Your task to perform on an android device: delete browsing data in the chrome app Image 0: 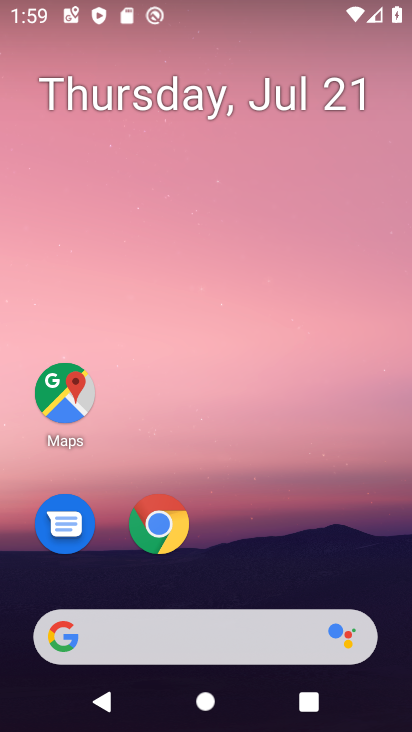
Step 0: click (178, 531)
Your task to perform on an android device: delete browsing data in the chrome app Image 1: 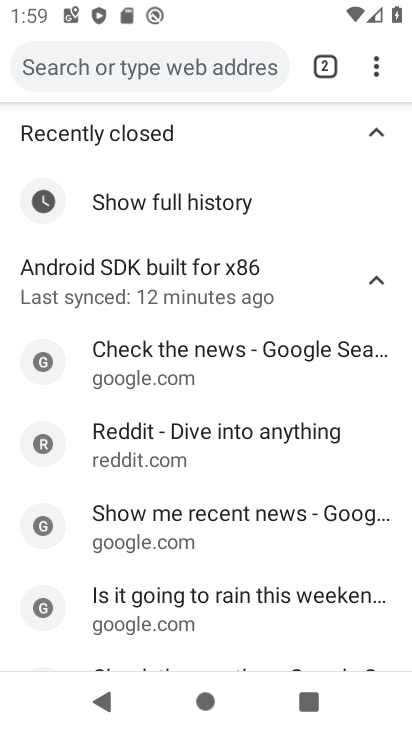
Step 1: click (376, 70)
Your task to perform on an android device: delete browsing data in the chrome app Image 2: 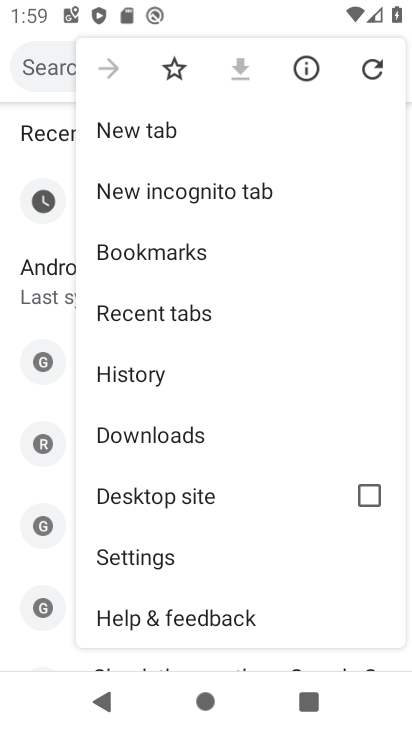
Step 2: click (129, 377)
Your task to perform on an android device: delete browsing data in the chrome app Image 3: 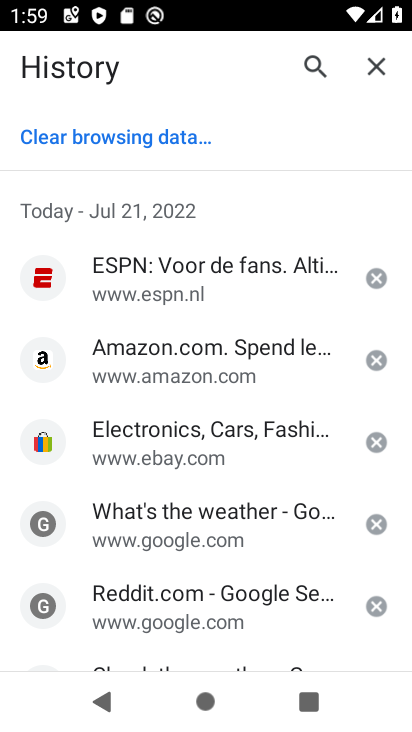
Step 3: click (126, 139)
Your task to perform on an android device: delete browsing data in the chrome app Image 4: 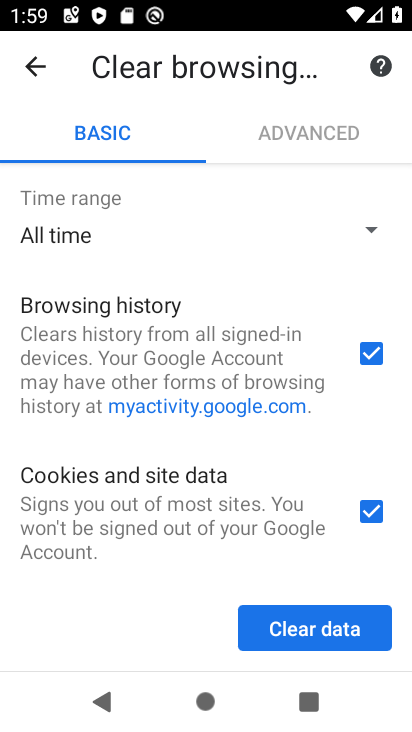
Step 4: click (268, 625)
Your task to perform on an android device: delete browsing data in the chrome app Image 5: 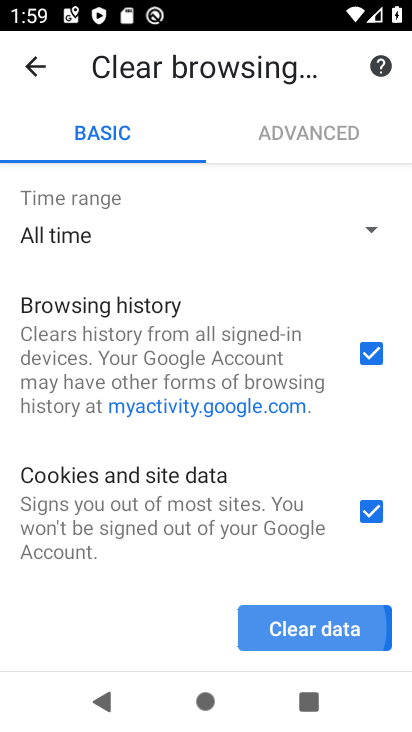
Step 5: click (268, 625)
Your task to perform on an android device: delete browsing data in the chrome app Image 6: 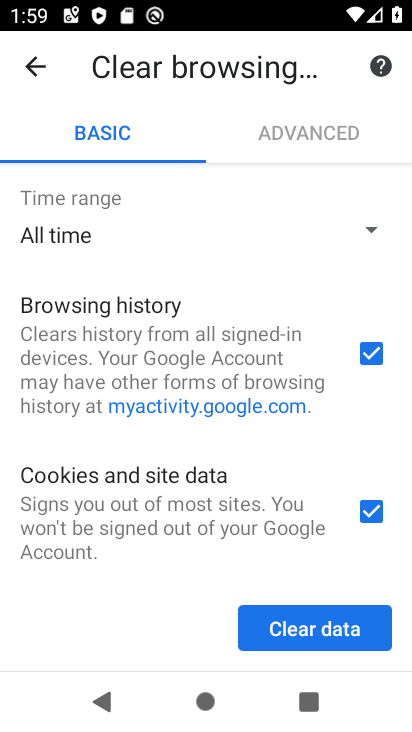
Step 6: click (268, 625)
Your task to perform on an android device: delete browsing data in the chrome app Image 7: 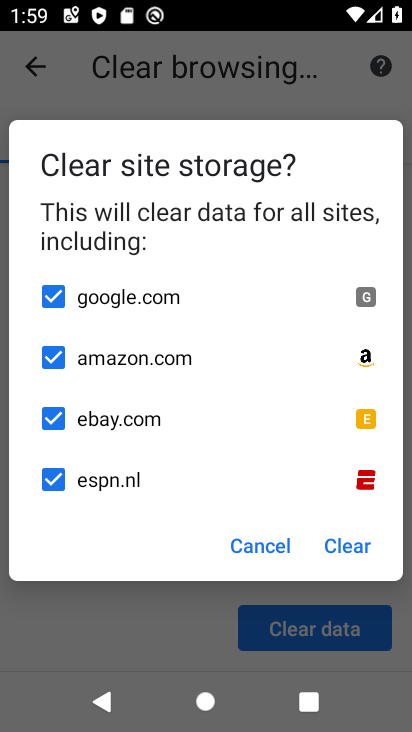
Step 7: click (341, 544)
Your task to perform on an android device: delete browsing data in the chrome app Image 8: 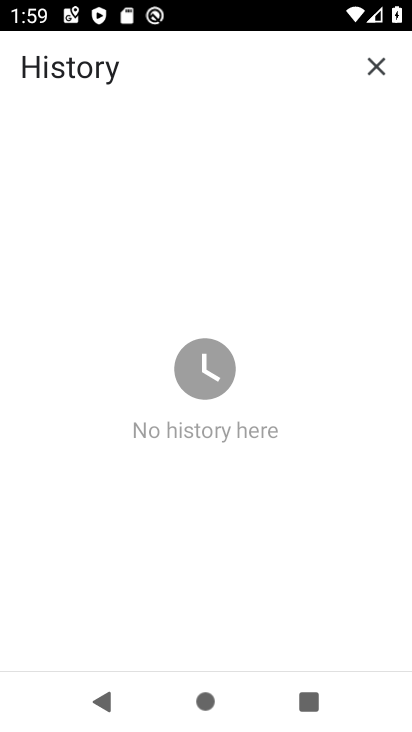
Step 8: task complete